Your task to perform on an android device: Open the map Image 0: 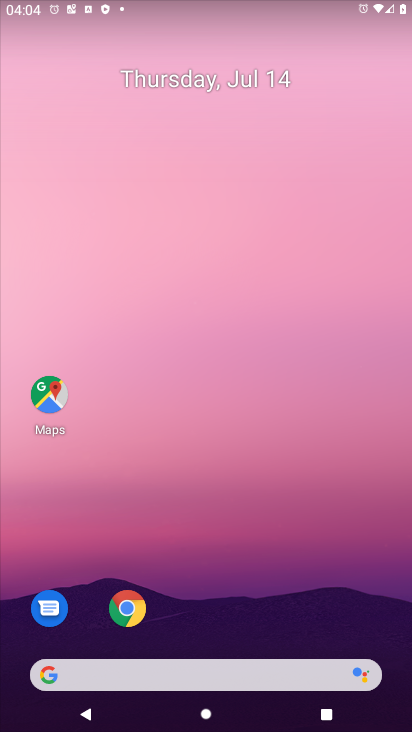
Step 0: click (50, 392)
Your task to perform on an android device: Open the map Image 1: 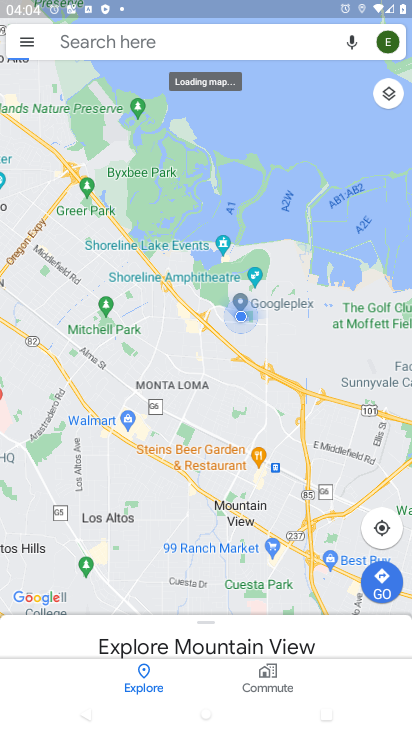
Step 1: task complete